Your task to perform on an android device: Go to Maps Image 0: 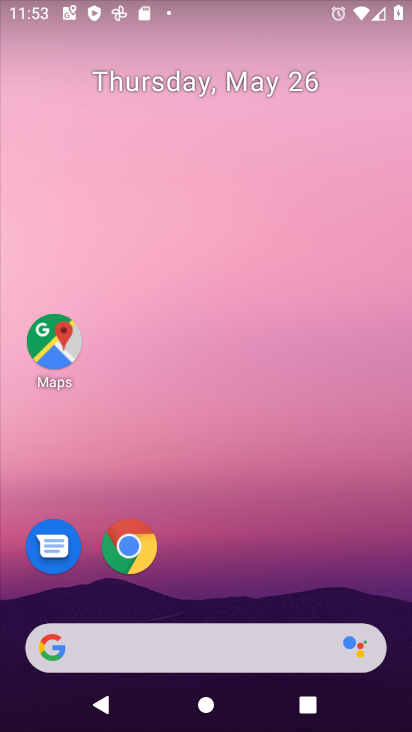
Step 0: click (58, 351)
Your task to perform on an android device: Go to Maps Image 1: 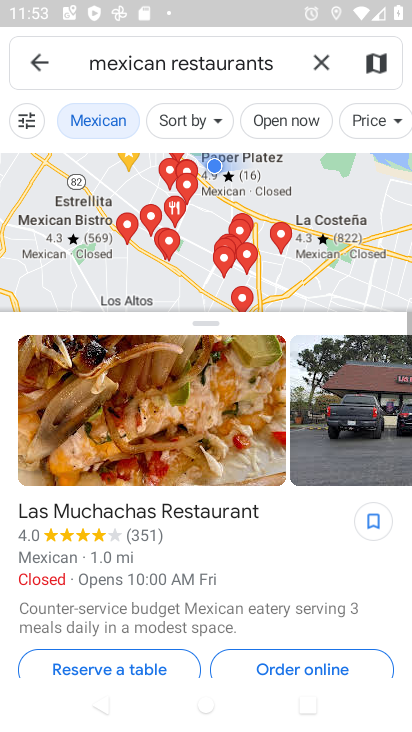
Step 1: task complete